Your task to perform on an android device: Open notification settings Image 0: 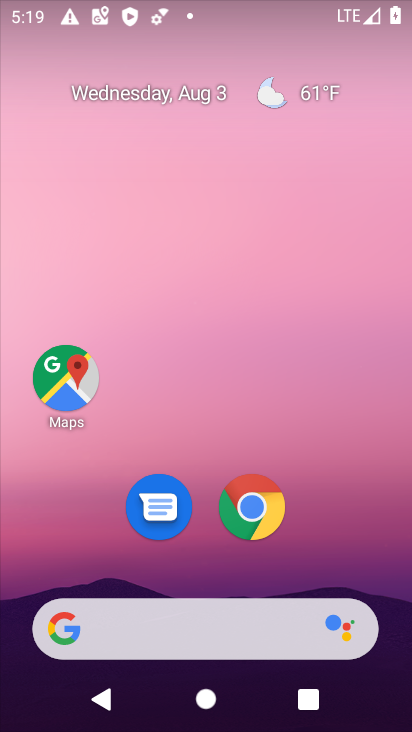
Step 0: drag from (338, 519) to (364, 57)
Your task to perform on an android device: Open notification settings Image 1: 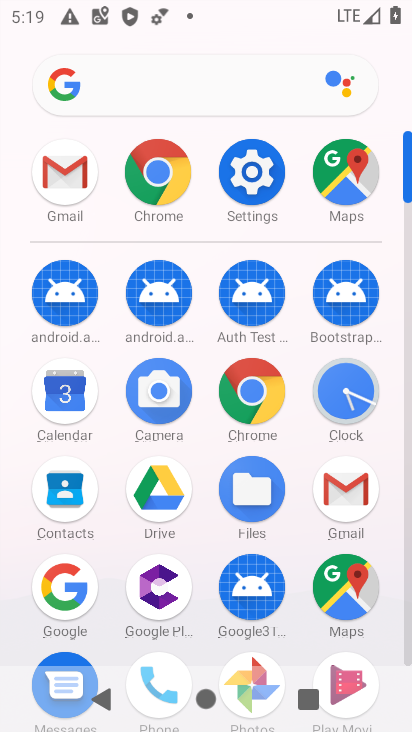
Step 1: click (241, 170)
Your task to perform on an android device: Open notification settings Image 2: 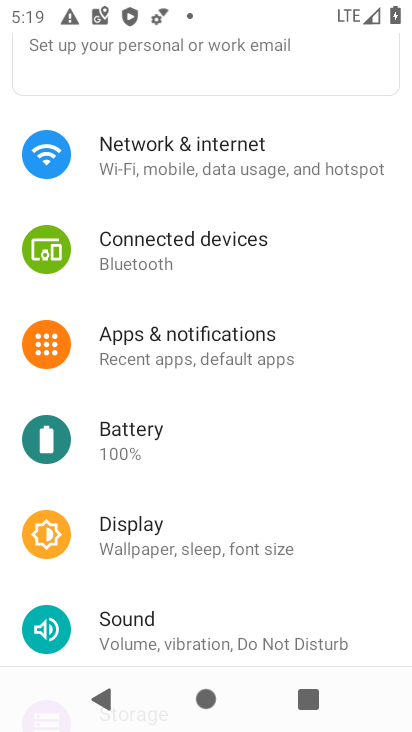
Step 2: drag from (268, 624) to (186, 678)
Your task to perform on an android device: Open notification settings Image 3: 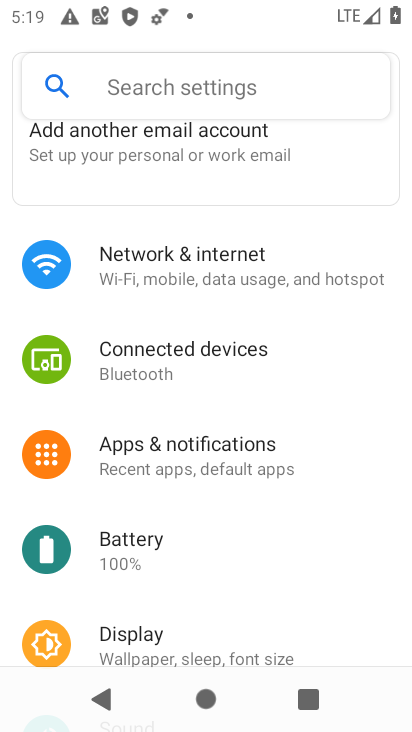
Step 3: click (196, 447)
Your task to perform on an android device: Open notification settings Image 4: 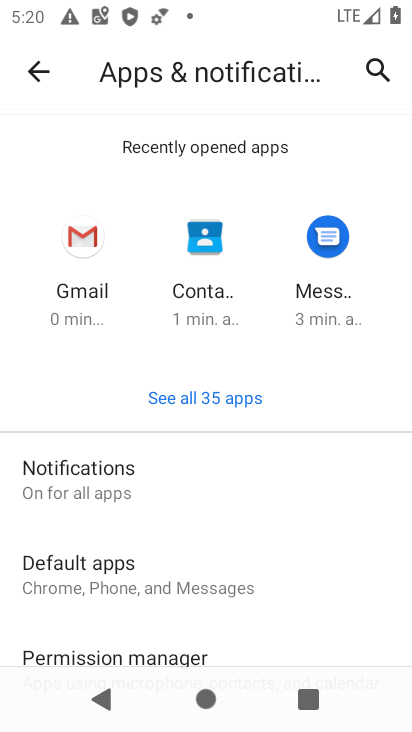
Step 4: click (104, 475)
Your task to perform on an android device: Open notification settings Image 5: 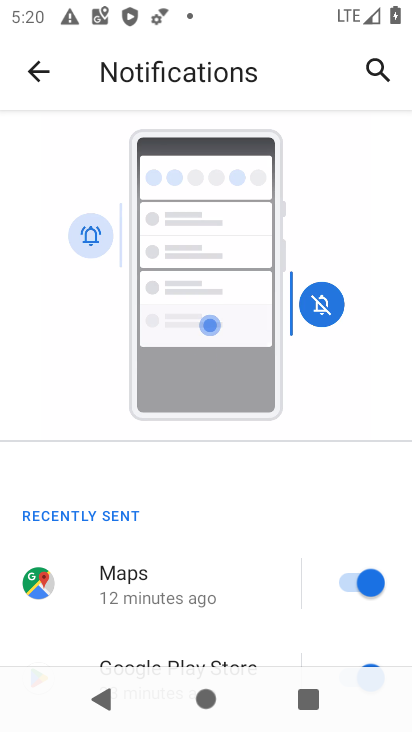
Step 5: task complete